Your task to perform on an android device: check data usage Image 0: 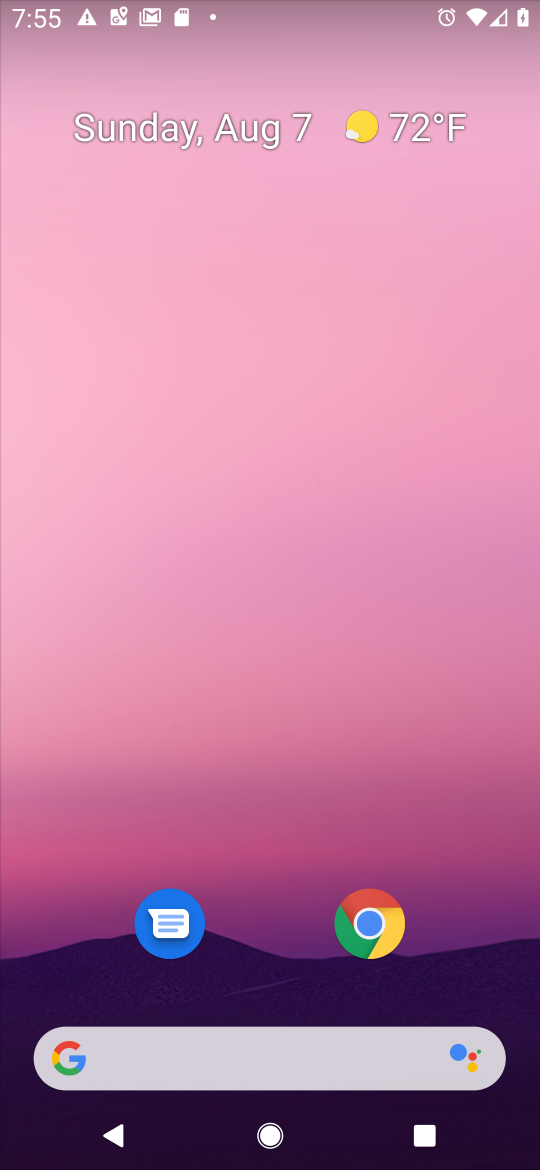
Step 0: drag from (508, 988) to (313, 123)
Your task to perform on an android device: check data usage Image 1: 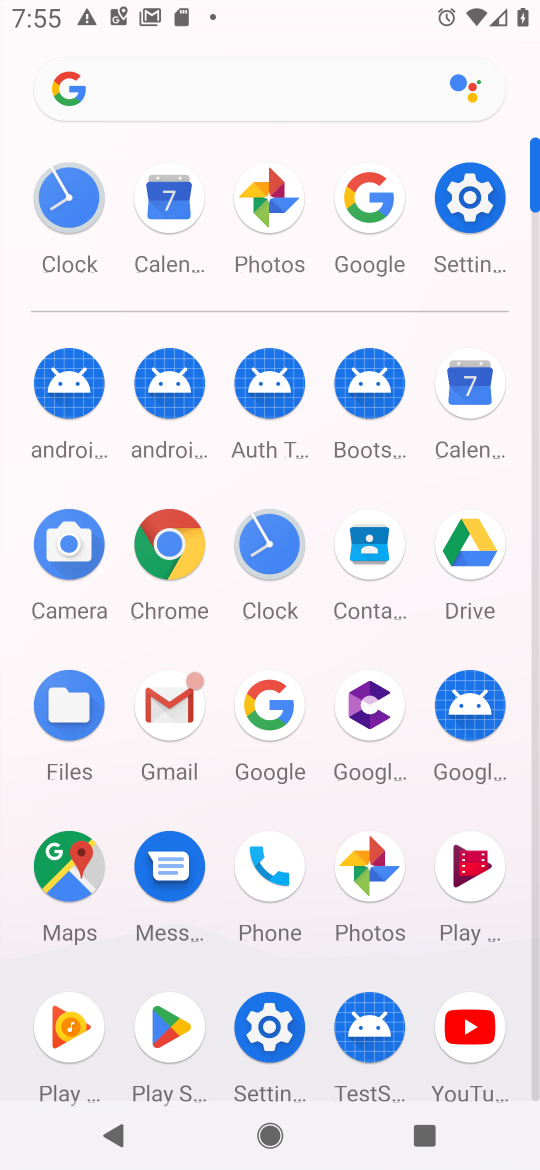
Step 1: click (273, 1018)
Your task to perform on an android device: check data usage Image 2: 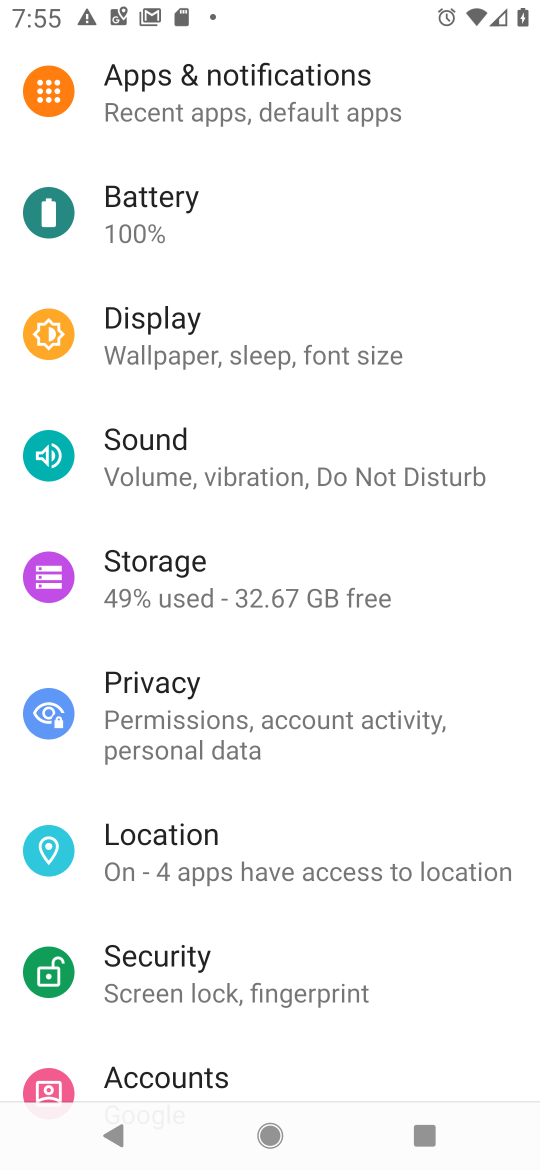
Step 2: drag from (214, 281) to (320, 933)
Your task to perform on an android device: check data usage Image 3: 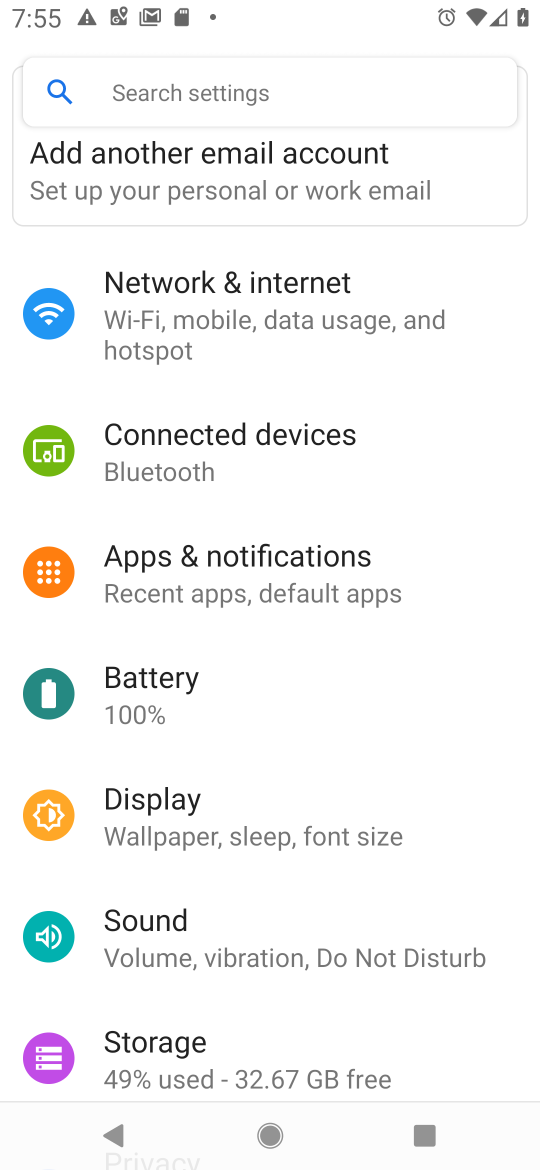
Step 3: click (196, 336)
Your task to perform on an android device: check data usage Image 4: 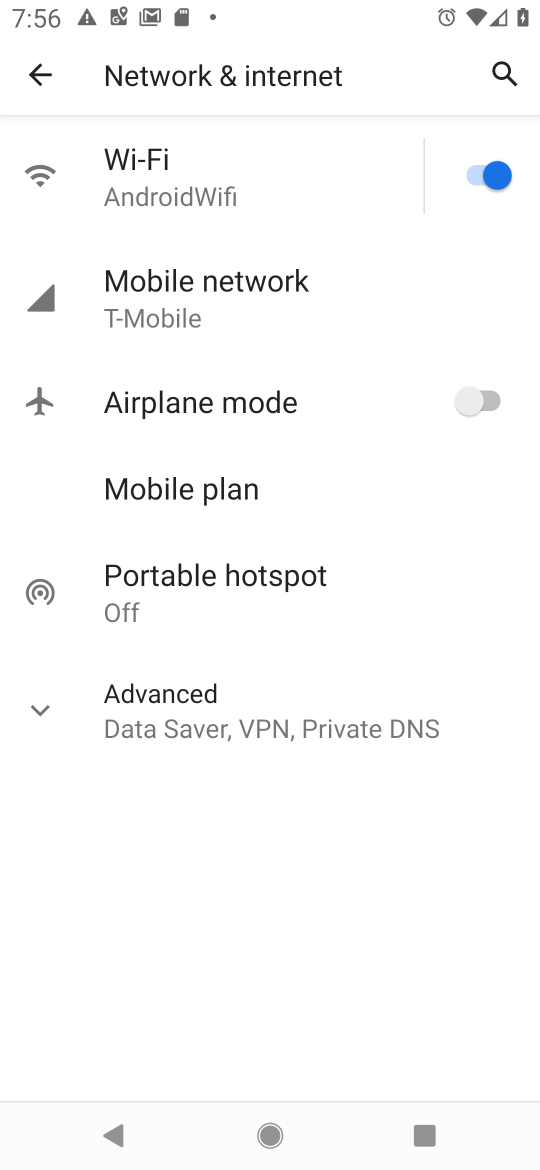
Step 4: click (196, 336)
Your task to perform on an android device: check data usage Image 5: 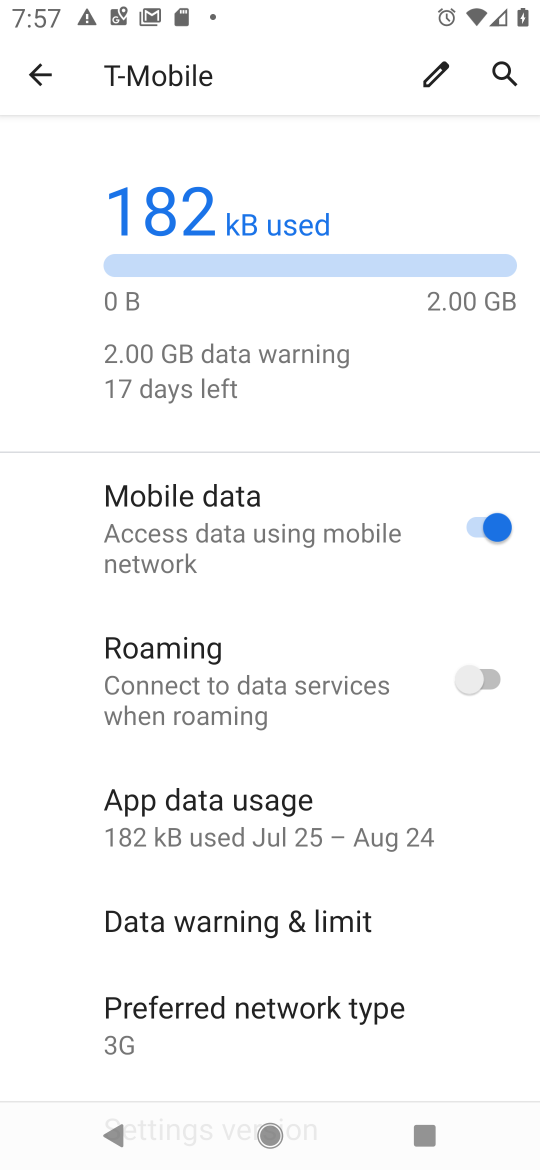
Step 5: click (228, 787)
Your task to perform on an android device: check data usage Image 6: 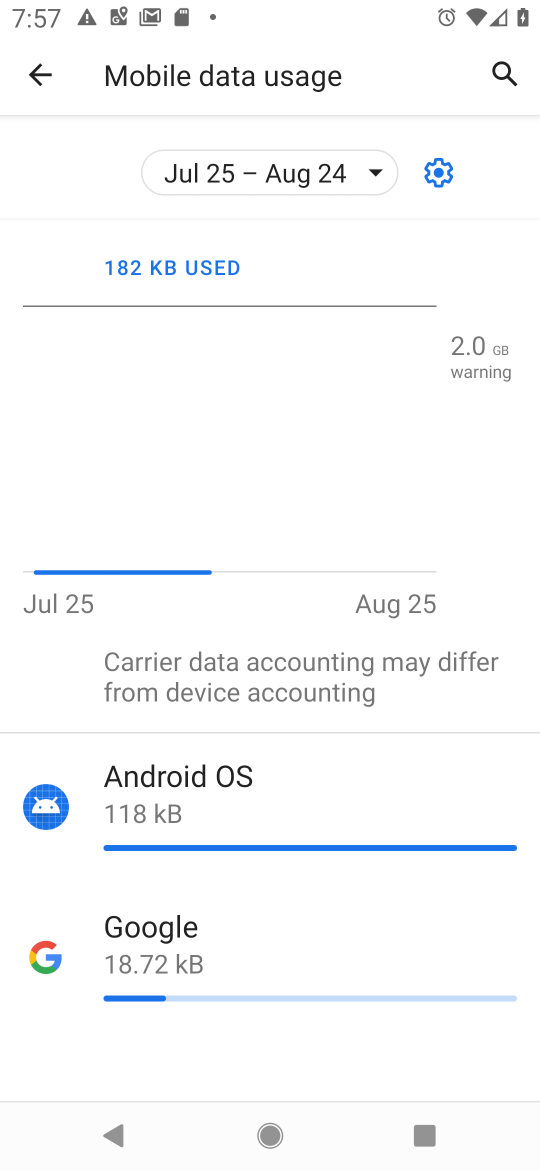
Step 6: task complete